Your task to perform on an android device: turn on wifi Image 0: 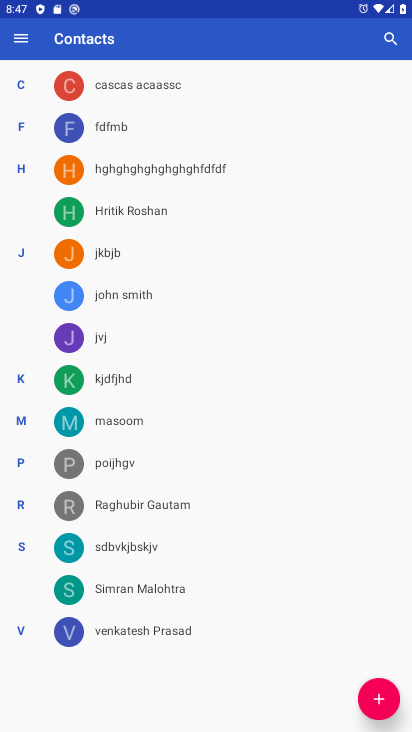
Step 0: press home button
Your task to perform on an android device: turn on wifi Image 1: 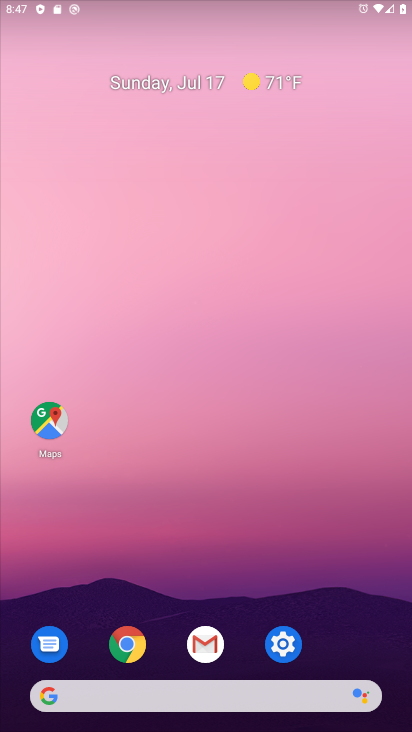
Step 1: click (282, 655)
Your task to perform on an android device: turn on wifi Image 2: 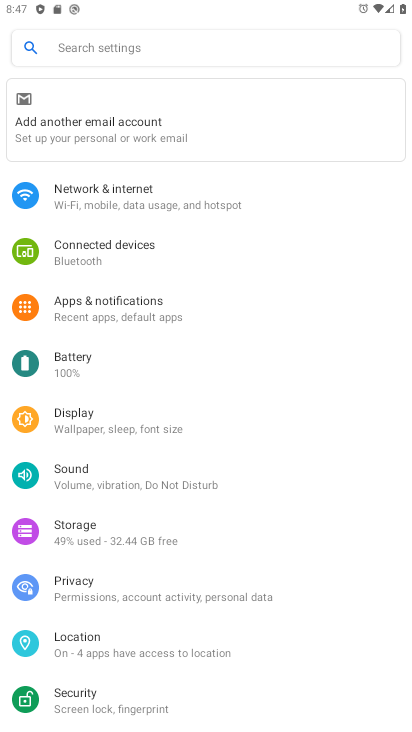
Step 2: click (108, 200)
Your task to perform on an android device: turn on wifi Image 3: 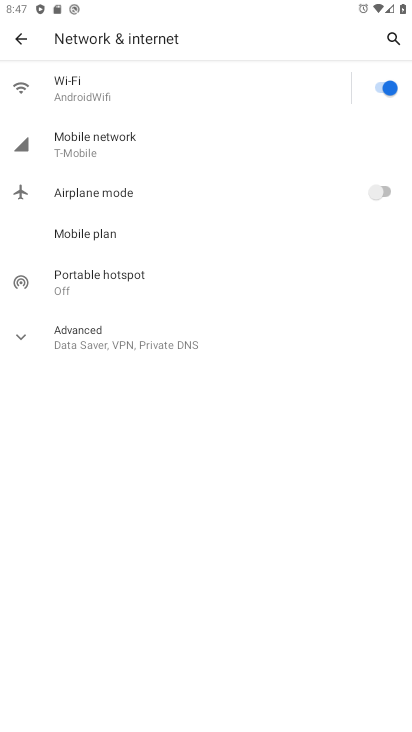
Step 3: click (160, 74)
Your task to perform on an android device: turn on wifi Image 4: 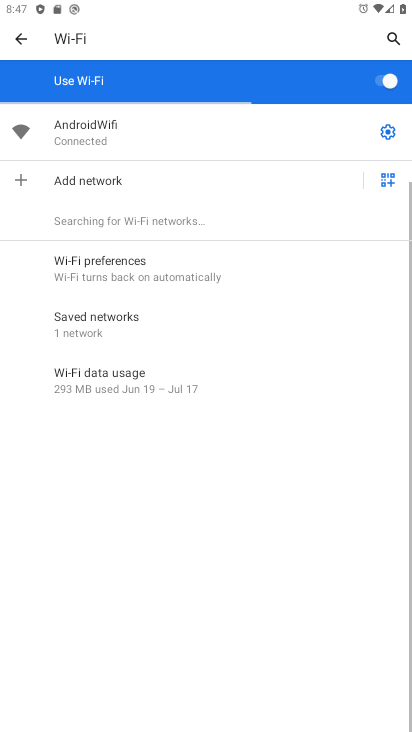
Step 4: click (392, 88)
Your task to perform on an android device: turn on wifi Image 5: 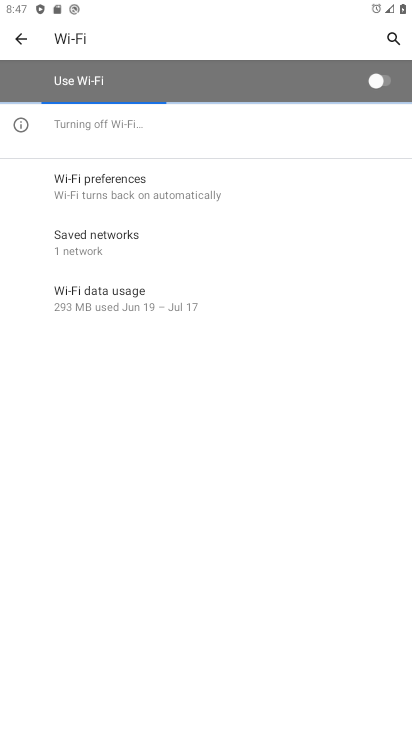
Step 5: click (389, 89)
Your task to perform on an android device: turn on wifi Image 6: 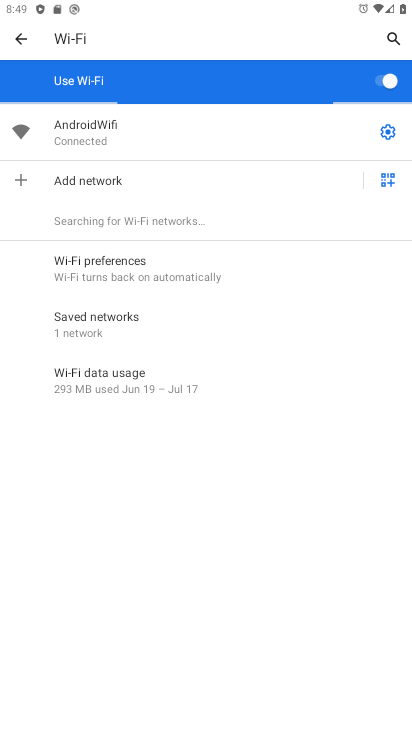
Step 6: task complete